Your task to perform on an android device: Open settings Image 0: 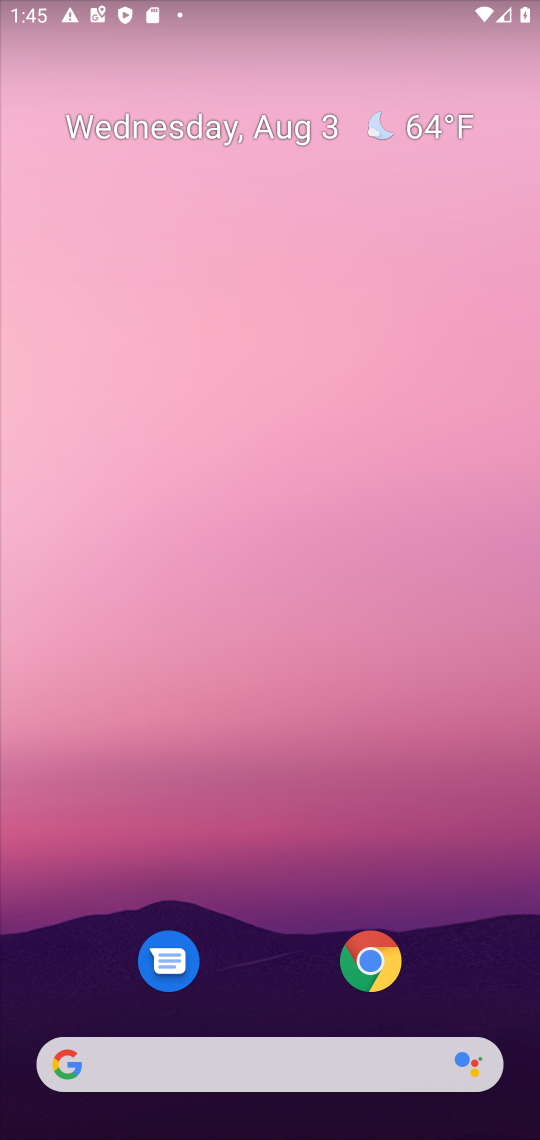
Step 0: drag from (286, 740) to (289, 15)
Your task to perform on an android device: Open settings Image 1: 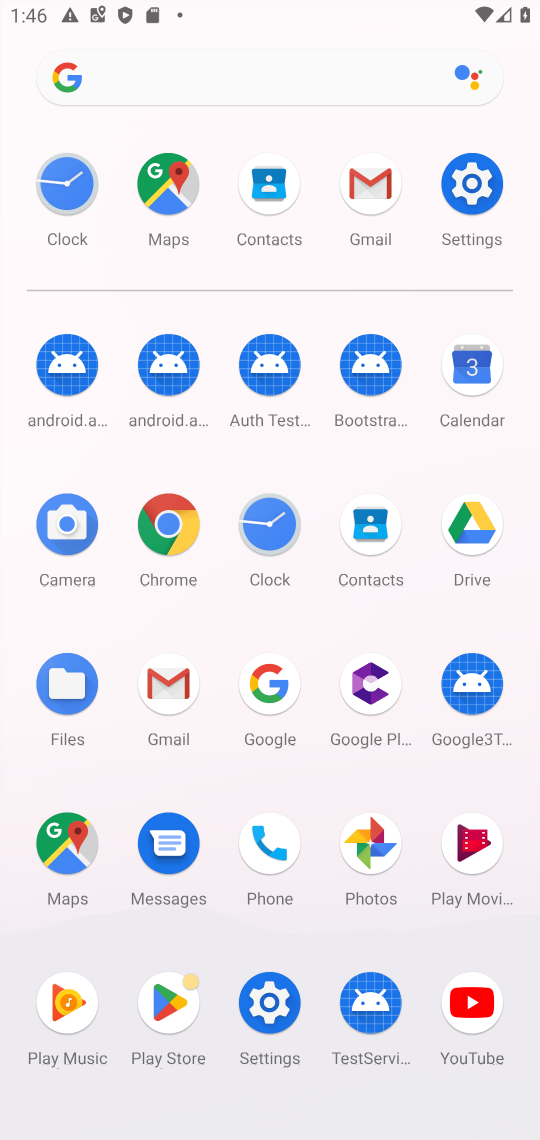
Step 1: click (464, 161)
Your task to perform on an android device: Open settings Image 2: 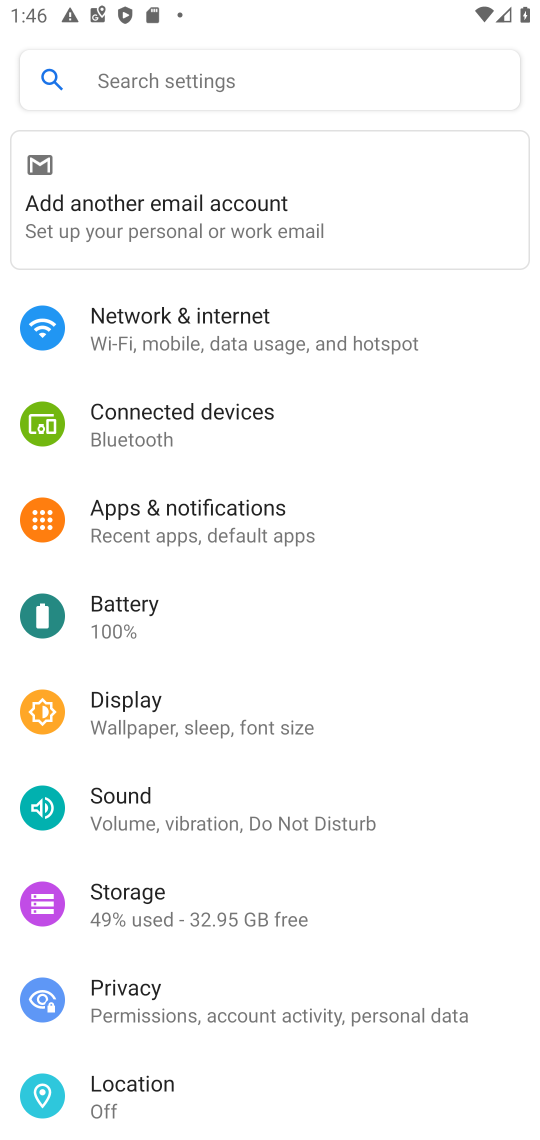
Step 2: task complete